Your task to perform on an android device: Go to Amazon Image 0: 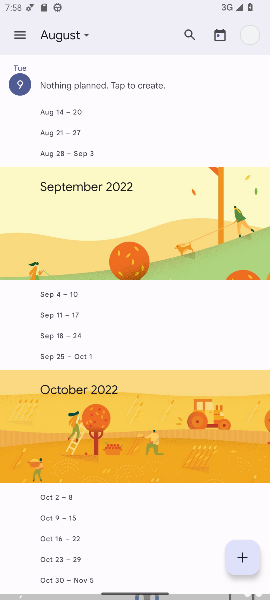
Step 0: press home button
Your task to perform on an android device: Go to Amazon Image 1: 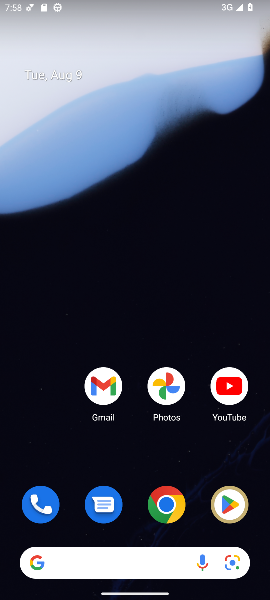
Step 1: click (169, 510)
Your task to perform on an android device: Go to Amazon Image 2: 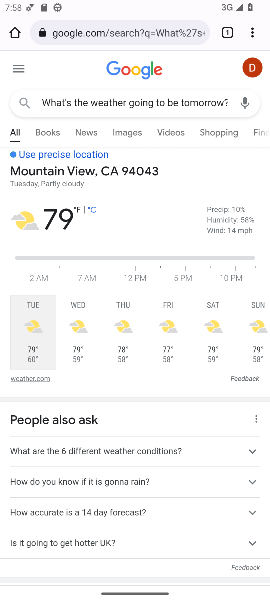
Step 2: click (144, 32)
Your task to perform on an android device: Go to Amazon Image 3: 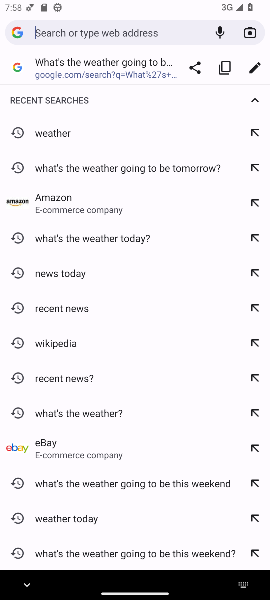
Step 3: type "amazon"
Your task to perform on an android device: Go to Amazon Image 4: 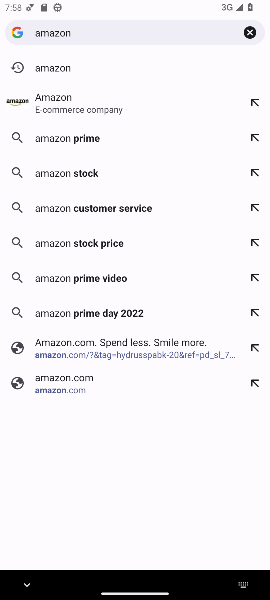
Step 4: click (72, 353)
Your task to perform on an android device: Go to Amazon Image 5: 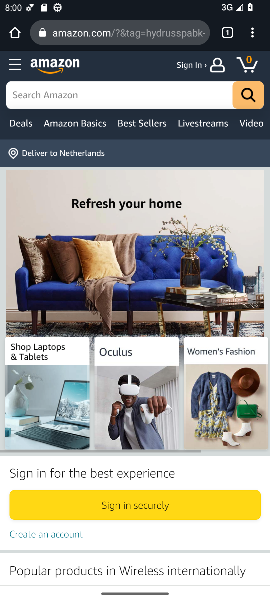
Step 5: task complete